Your task to perform on an android device: Open privacy settings Image 0: 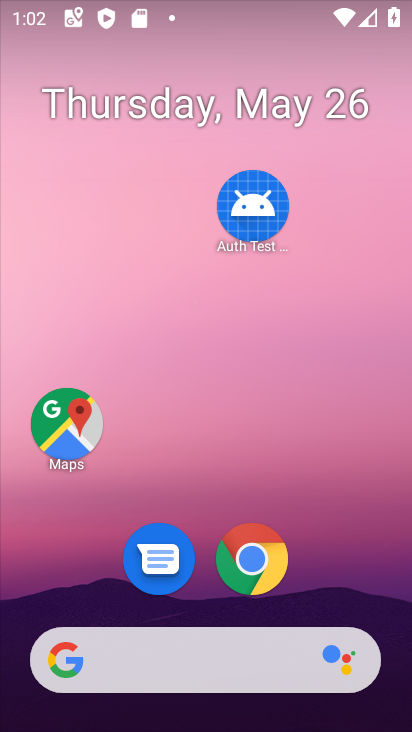
Step 0: drag from (361, 631) to (378, 105)
Your task to perform on an android device: Open privacy settings Image 1: 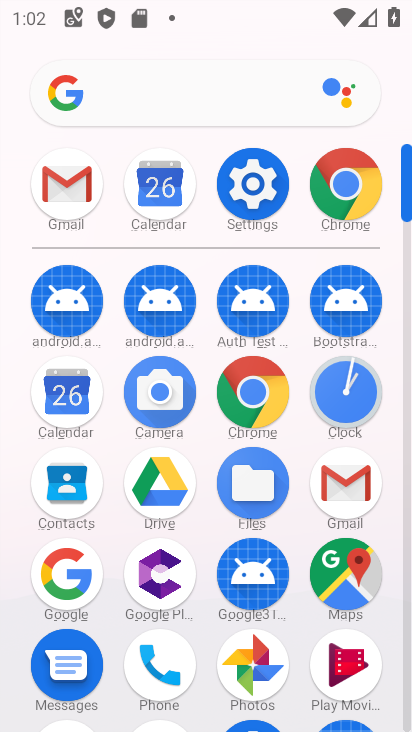
Step 1: click (249, 171)
Your task to perform on an android device: Open privacy settings Image 2: 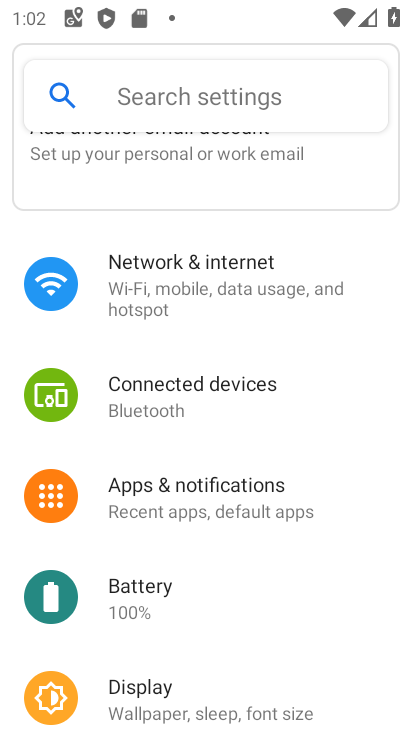
Step 2: drag from (212, 615) to (189, 323)
Your task to perform on an android device: Open privacy settings Image 3: 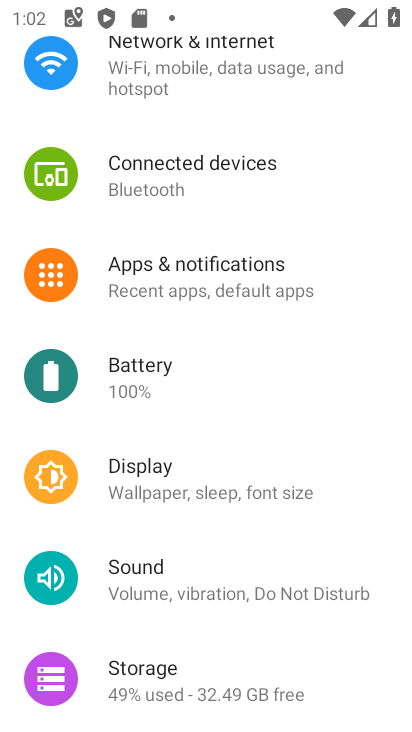
Step 3: drag from (196, 666) to (180, 398)
Your task to perform on an android device: Open privacy settings Image 4: 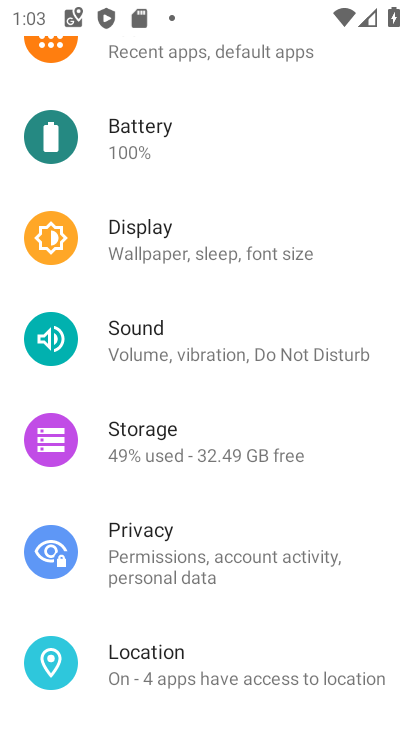
Step 4: click (171, 565)
Your task to perform on an android device: Open privacy settings Image 5: 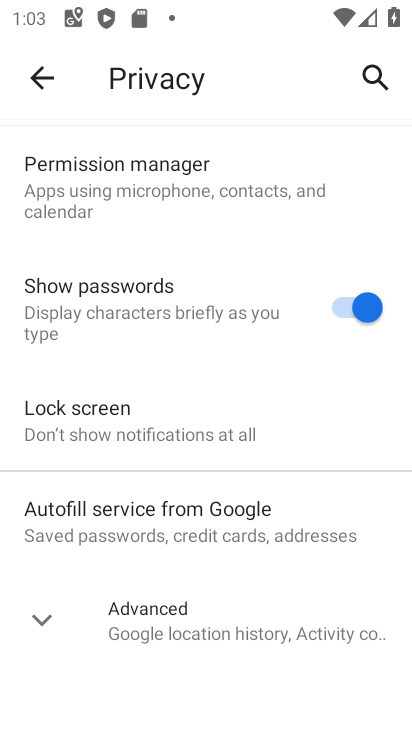
Step 5: task complete